Your task to perform on an android device: Open the Play Movies app and select the watchlist tab. Image 0: 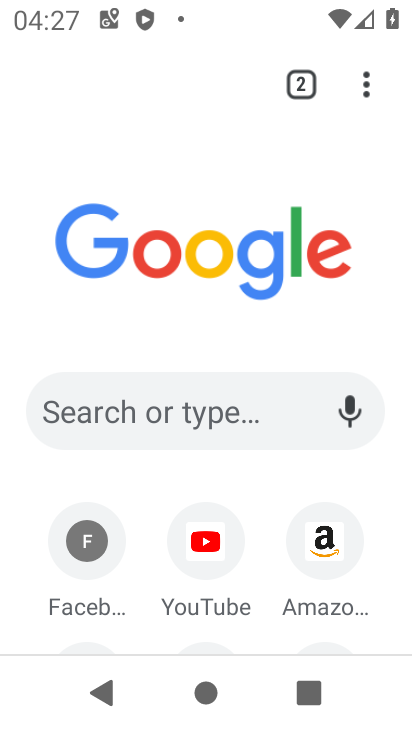
Step 0: press home button
Your task to perform on an android device: Open the Play Movies app and select the watchlist tab. Image 1: 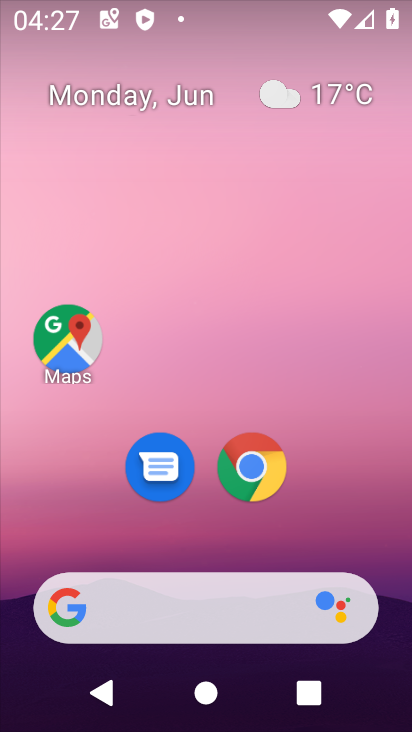
Step 1: drag from (213, 535) to (291, 6)
Your task to perform on an android device: Open the Play Movies app and select the watchlist tab. Image 2: 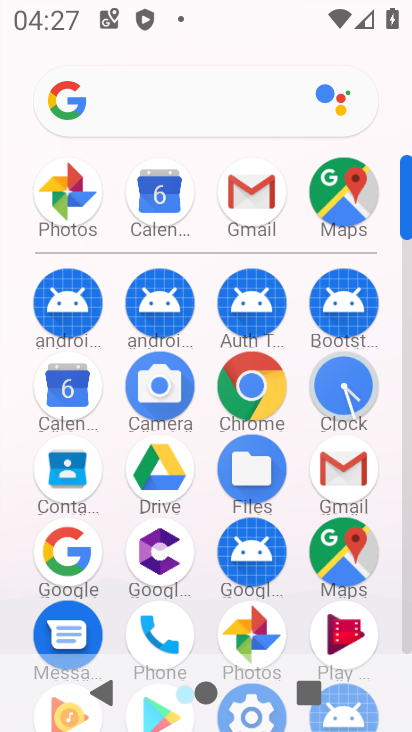
Step 2: click (339, 629)
Your task to perform on an android device: Open the Play Movies app and select the watchlist tab. Image 3: 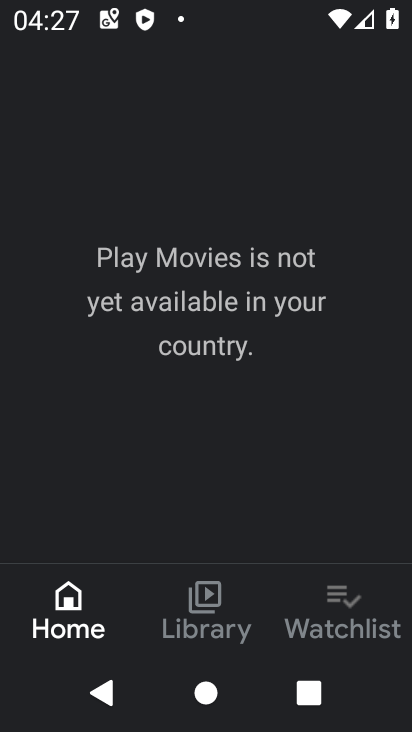
Step 3: click (351, 609)
Your task to perform on an android device: Open the Play Movies app and select the watchlist tab. Image 4: 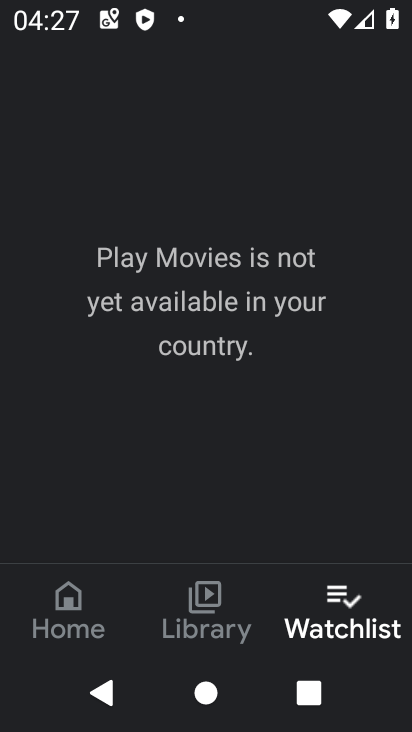
Step 4: task complete